Your task to perform on an android device: Open eBay Image 0: 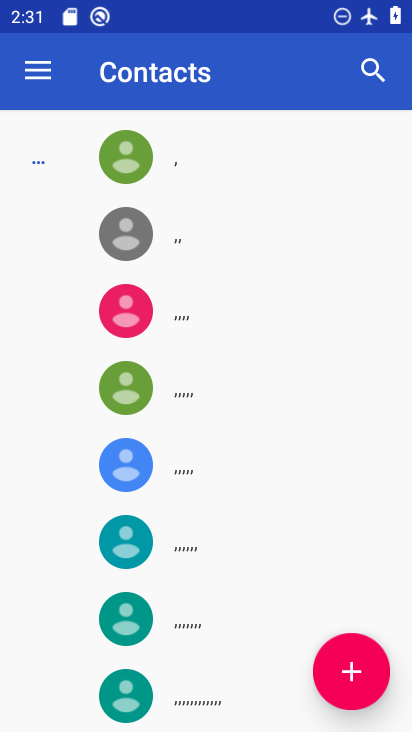
Step 0: press home button
Your task to perform on an android device: Open eBay Image 1: 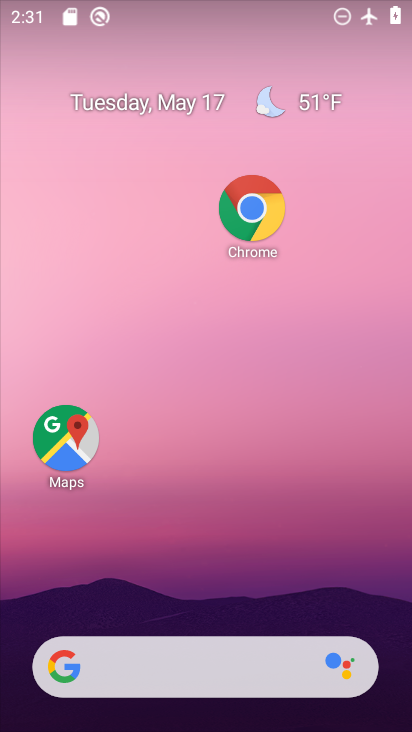
Step 1: drag from (190, 608) to (162, 122)
Your task to perform on an android device: Open eBay Image 2: 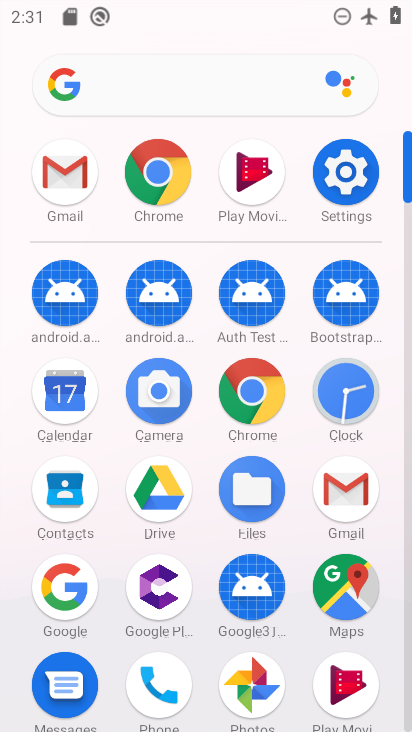
Step 2: click (261, 372)
Your task to perform on an android device: Open eBay Image 3: 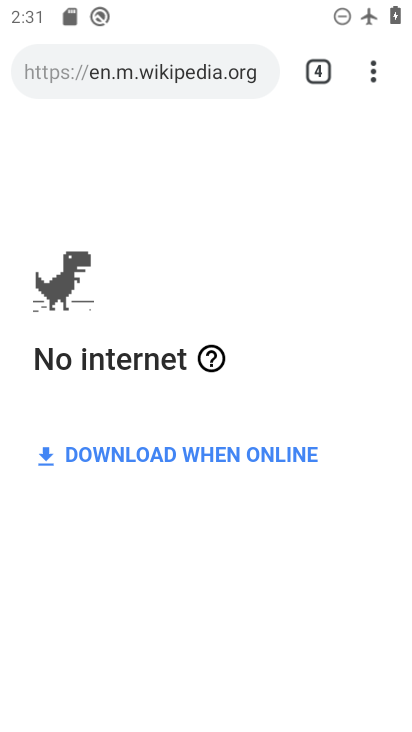
Step 3: task complete